Your task to perform on an android device: set an alarm Image 0: 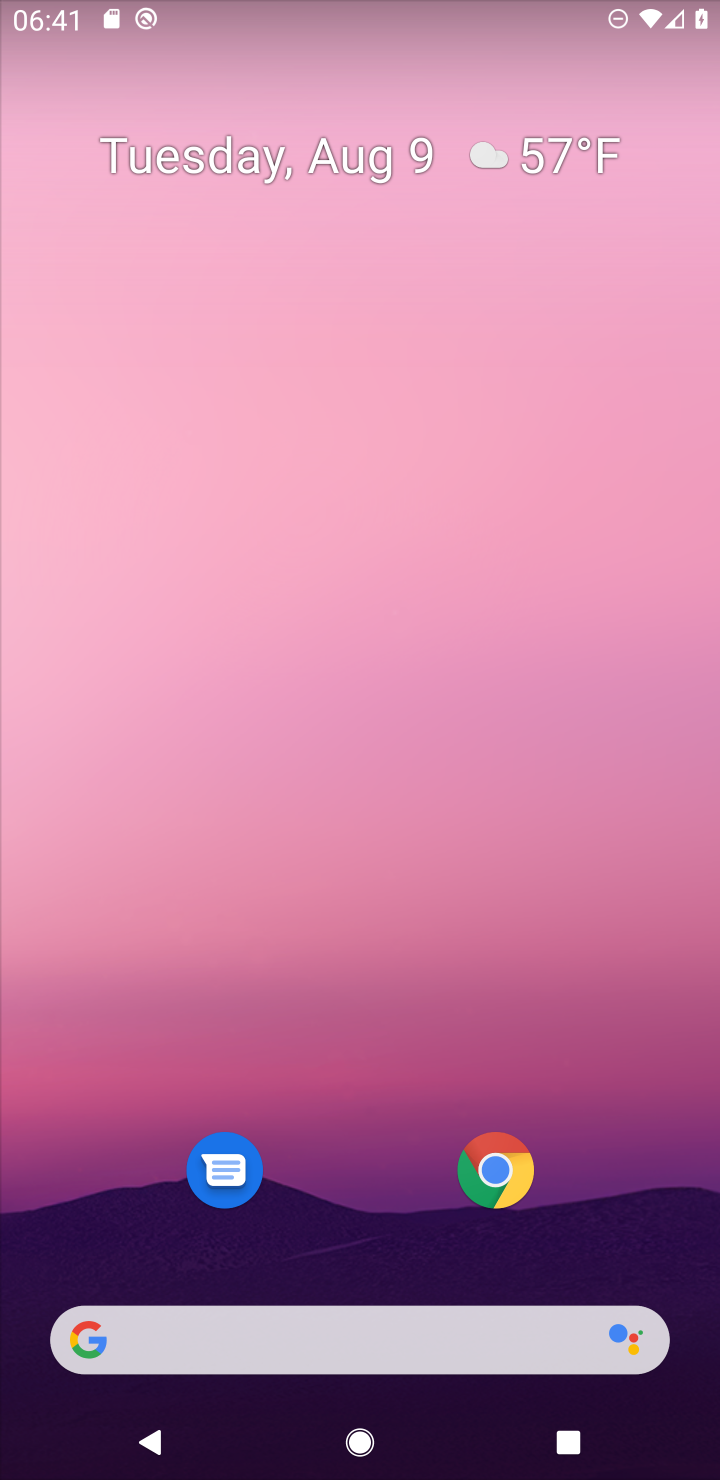
Step 0: drag from (394, 1070) to (390, 18)
Your task to perform on an android device: set an alarm Image 1: 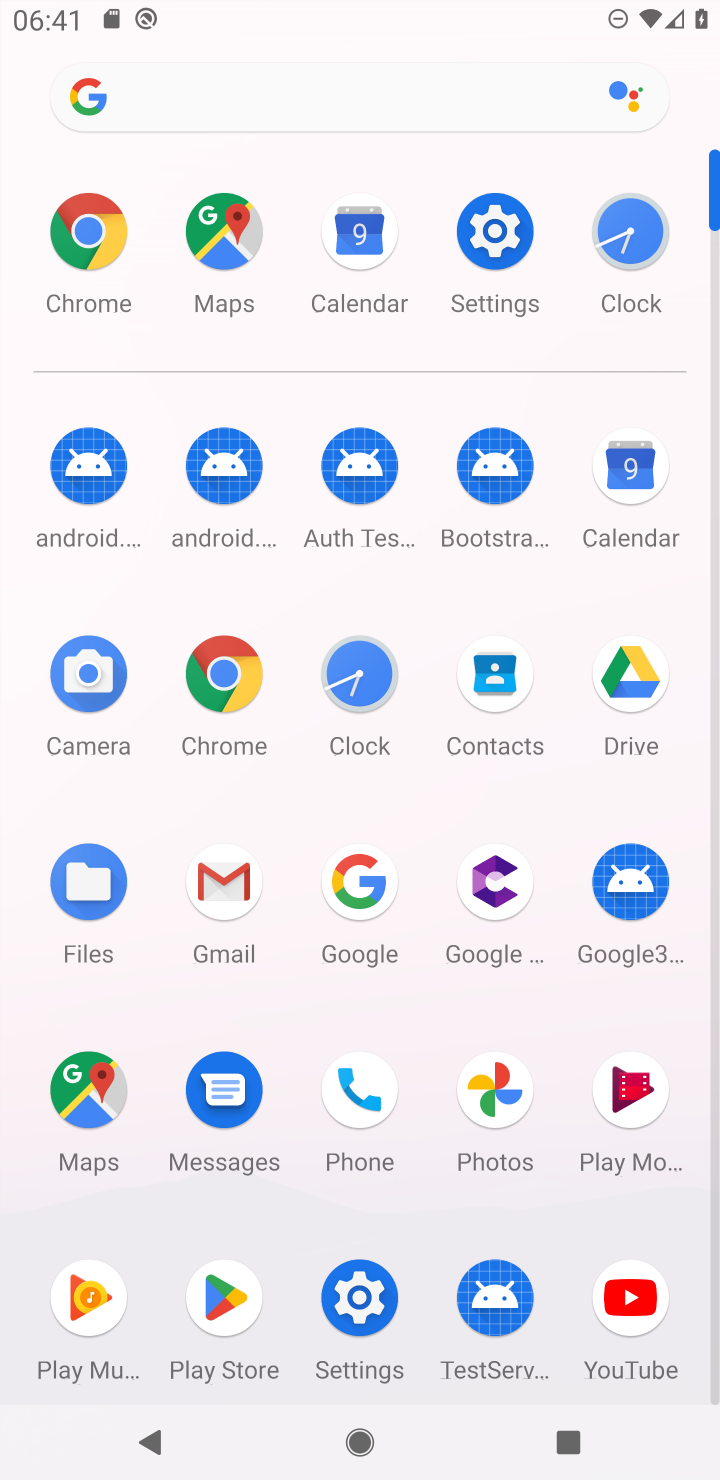
Step 1: click (645, 221)
Your task to perform on an android device: set an alarm Image 2: 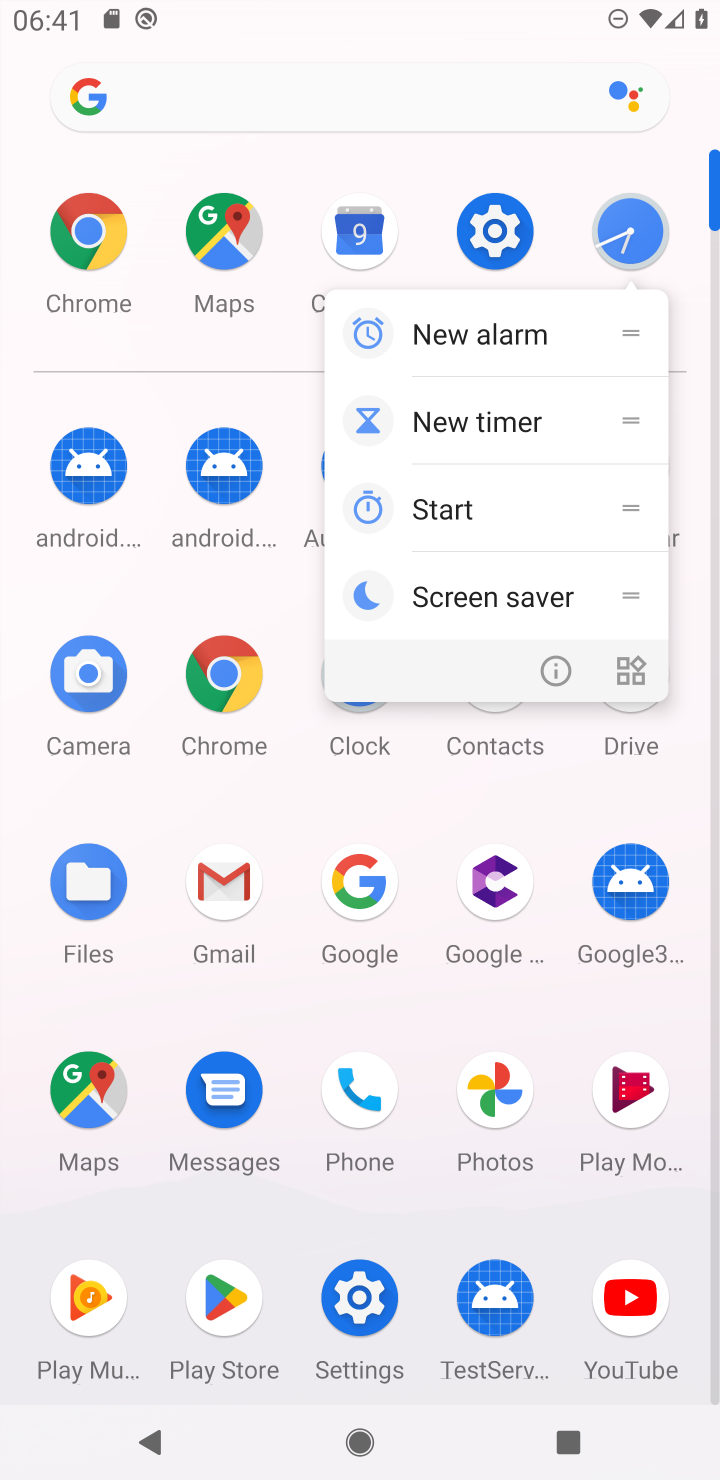
Step 2: click (645, 221)
Your task to perform on an android device: set an alarm Image 3: 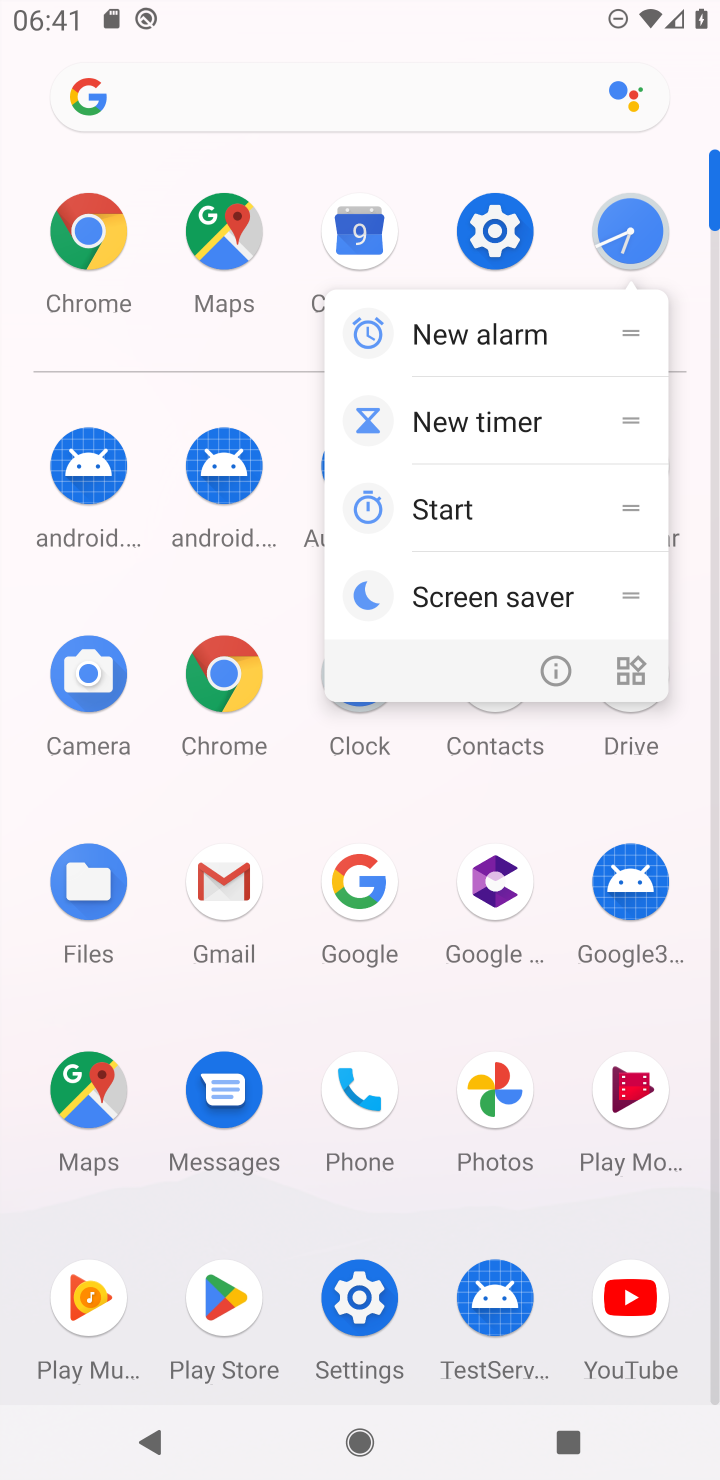
Step 3: click (645, 221)
Your task to perform on an android device: set an alarm Image 4: 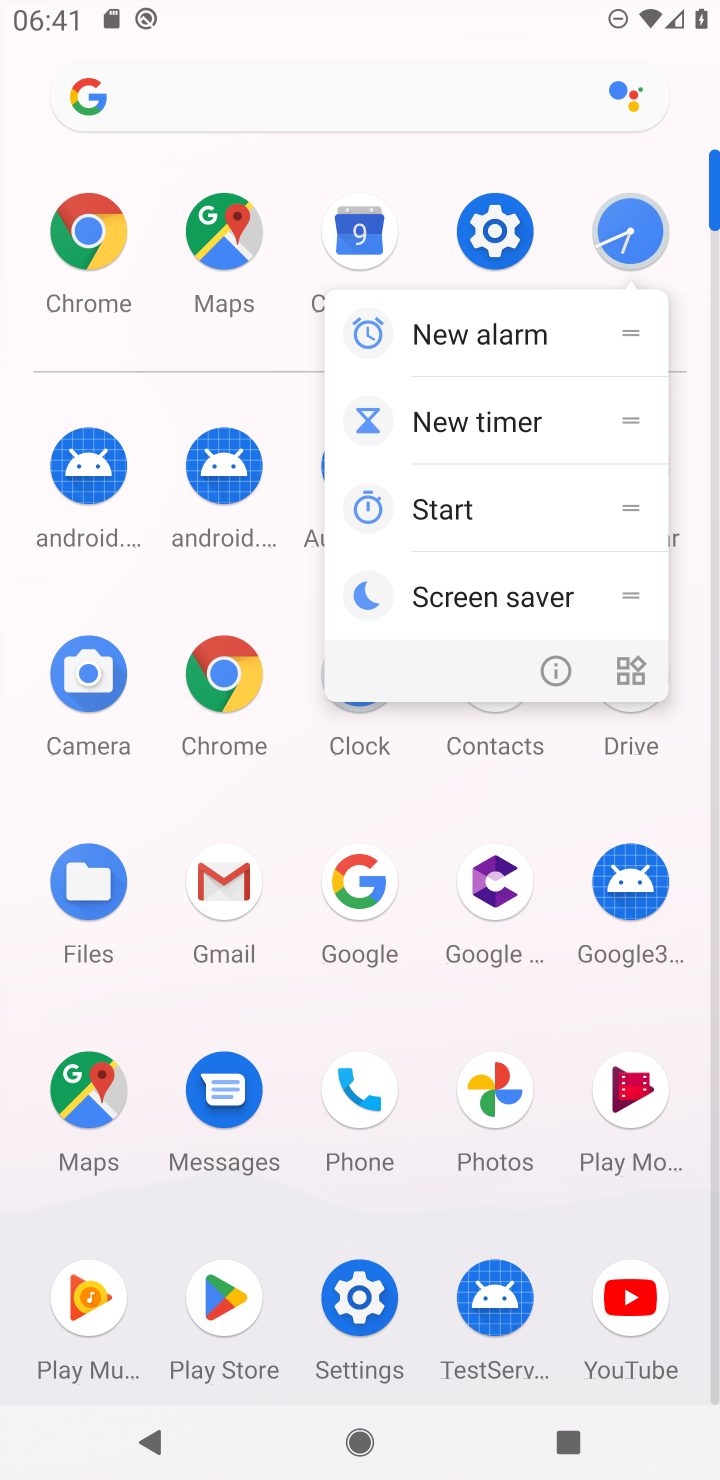
Step 4: click (645, 221)
Your task to perform on an android device: set an alarm Image 5: 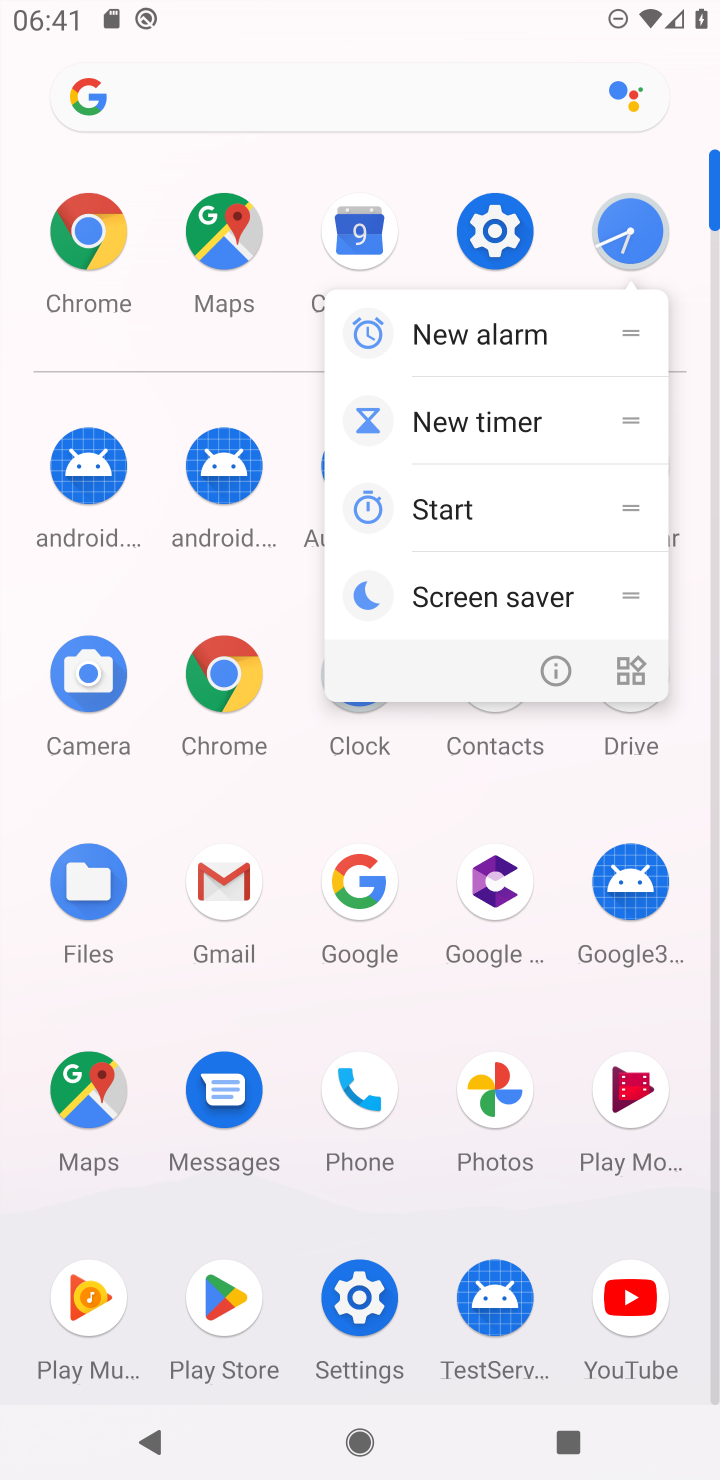
Step 5: click (645, 221)
Your task to perform on an android device: set an alarm Image 6: 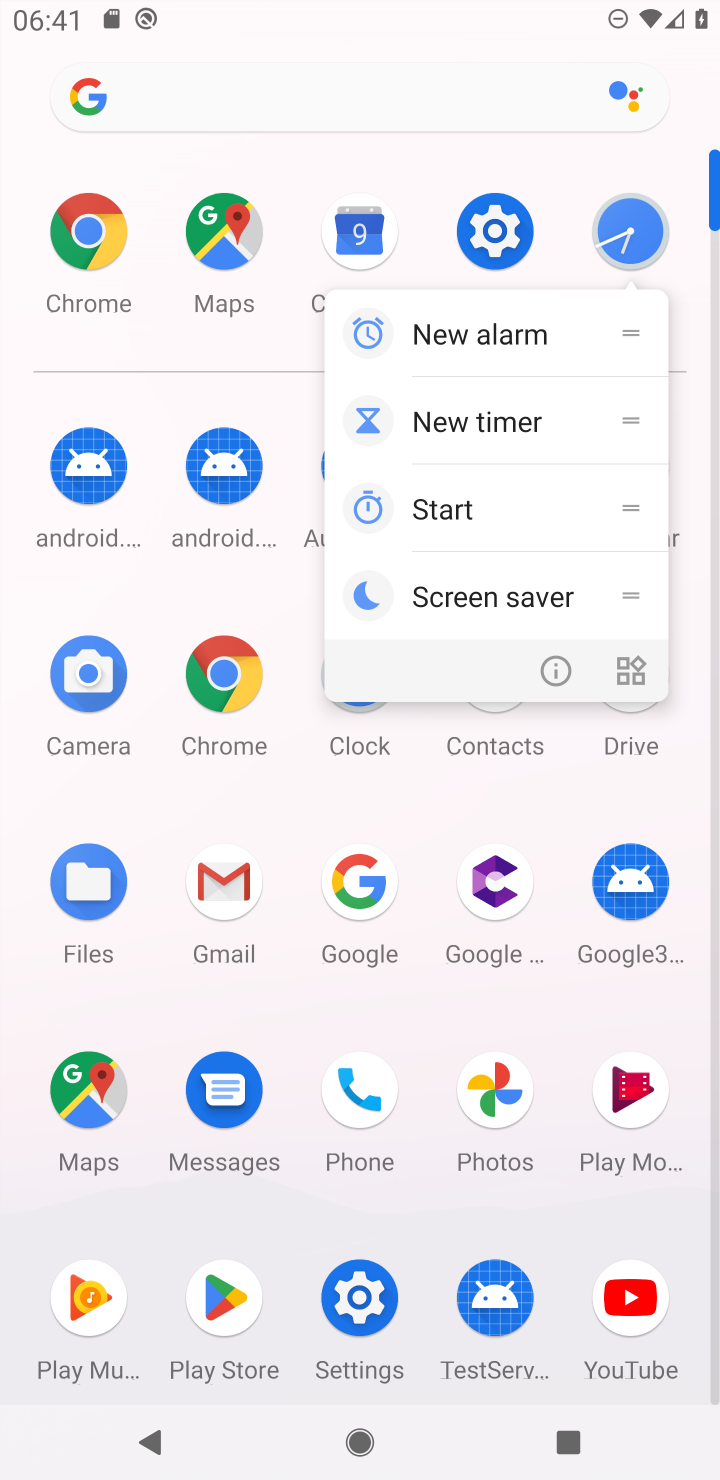
Step 6: click (645, 221)
Your task to perform on an android device: set an alarm Image 7: 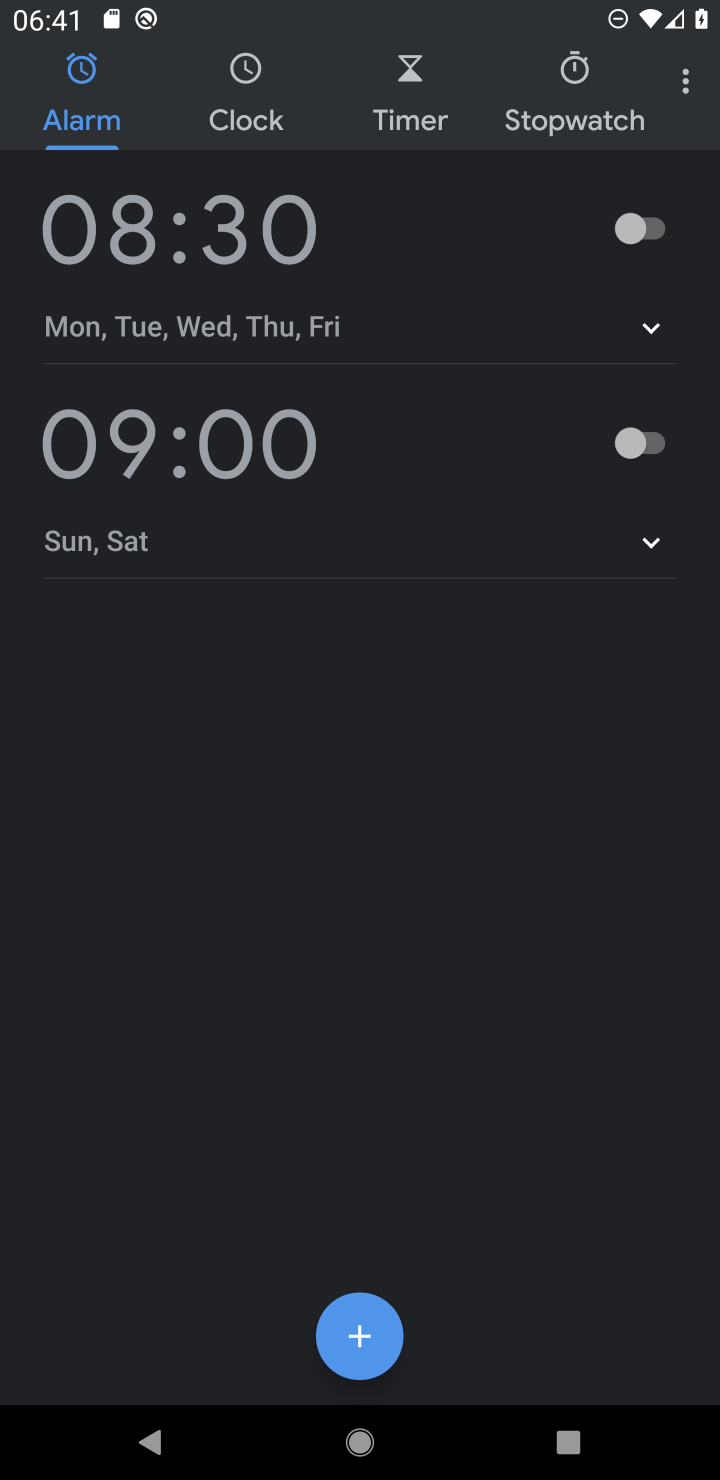
Step 7: click (620, 238)
Your task to perform on an android device: set an alarm Image 8: 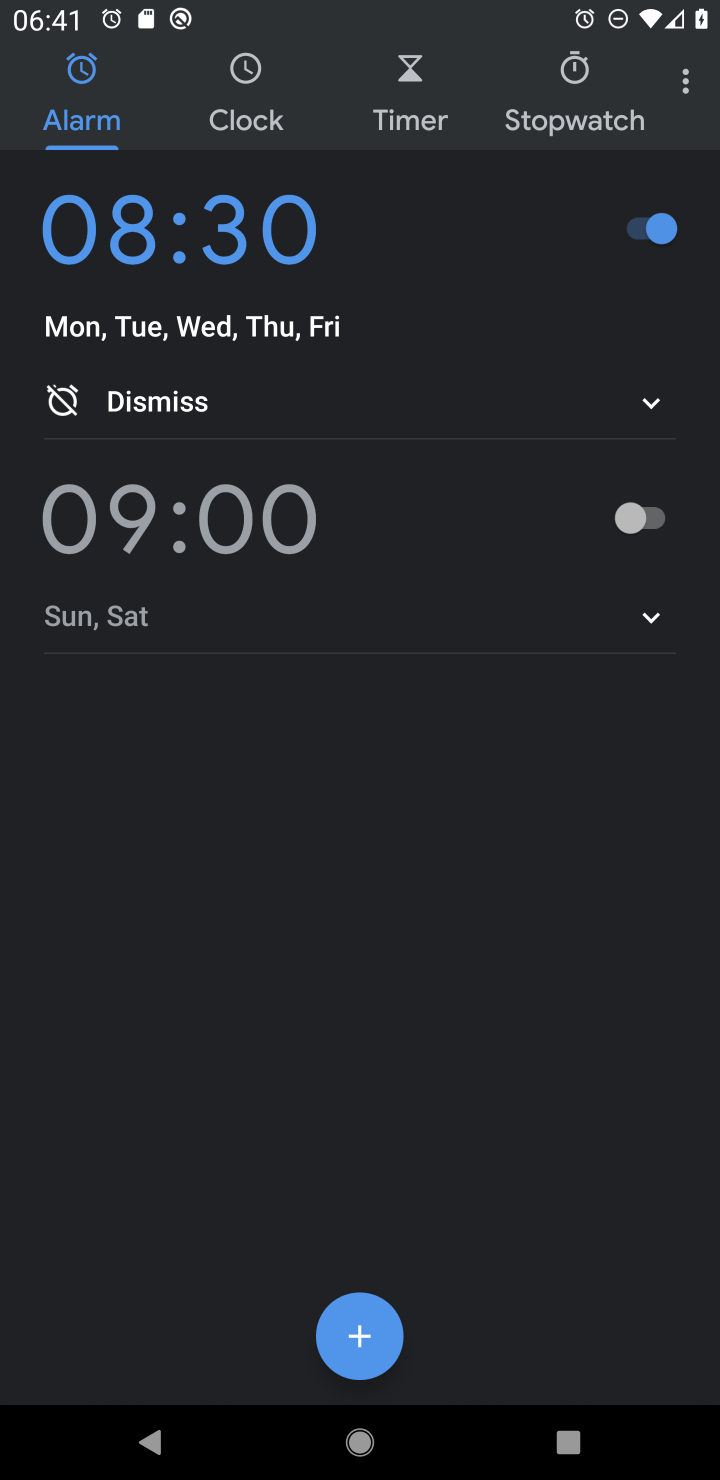
Step 8: task complete